Your task to perform on an android device: Check the news Image 0: 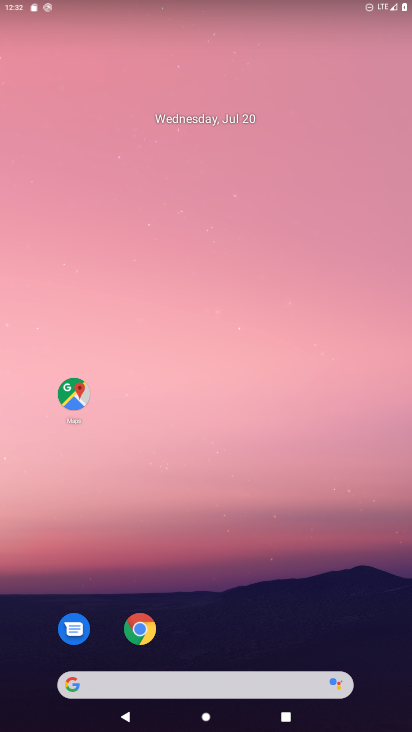
Step 0: click (144, 690)
Your task to perform on an android device: Check the news Image 1: 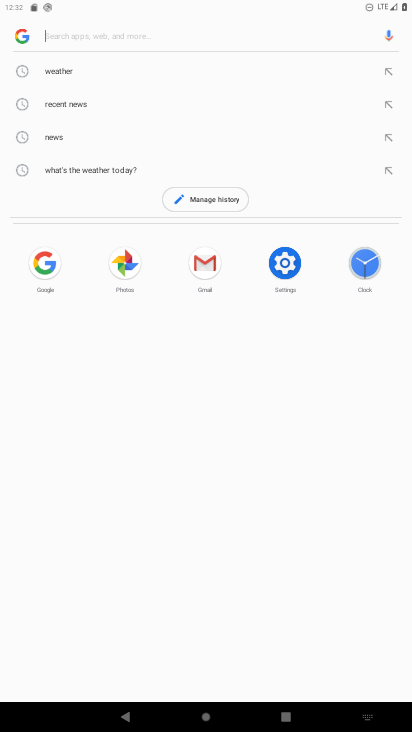
Step 1: click (58, 137)
Your task to perform on an android device: Check the news Image 2: 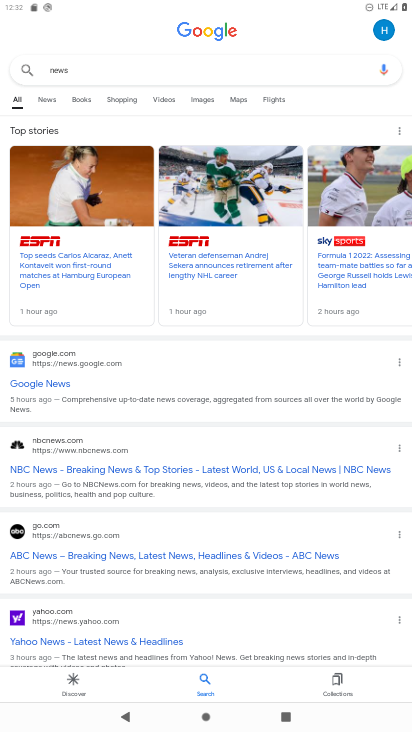
Step 2: task complete